Your task to perform on an android device: Open privacy settings Image 0: 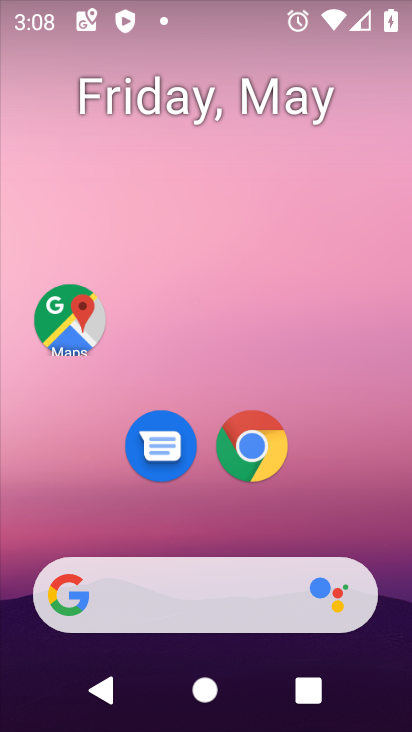
Step 0: drag from (393, 557) to (314, 118)
Your task to perform on an android device: Open privacy settings Image 1: 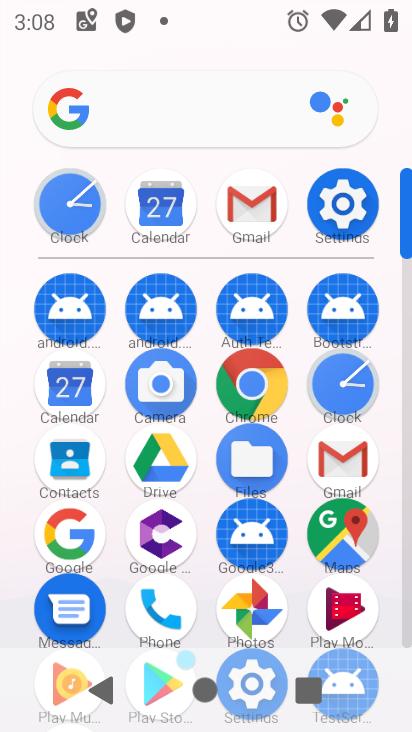
Step 1: click (347, 218)
Your task to perform on an android device: Open privacy settings Image 2: 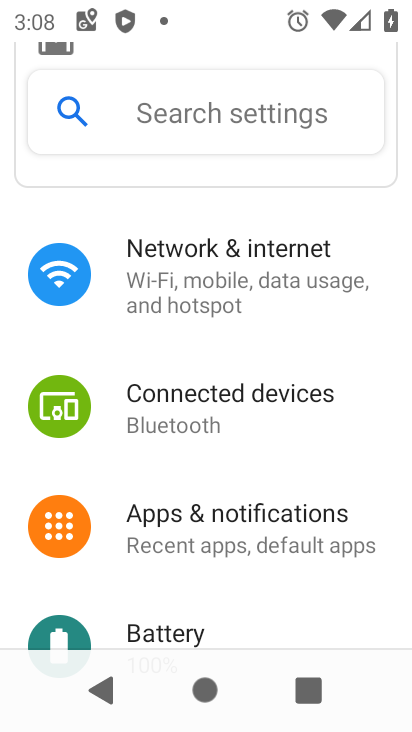
Step 2: drag from (280, 569) to (286, 128)
Your task to perform on an android device: Open privacy settings Image 3: 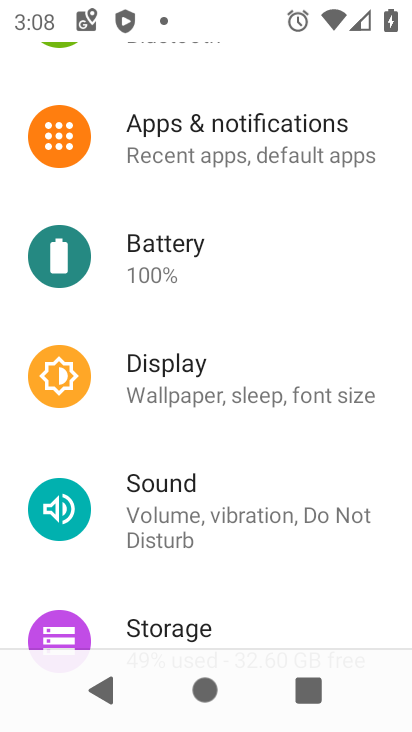
Step 3: drag from (274, 551) to (257, 124)
Your task to perform on an android device: Open privacy settings Image 4: 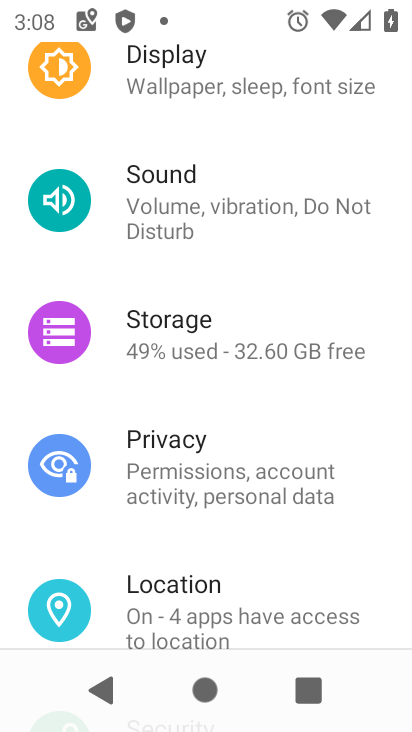
Step 4: click (248, 434)
Your task to perform on an android device: Open privacy settings Image 5: 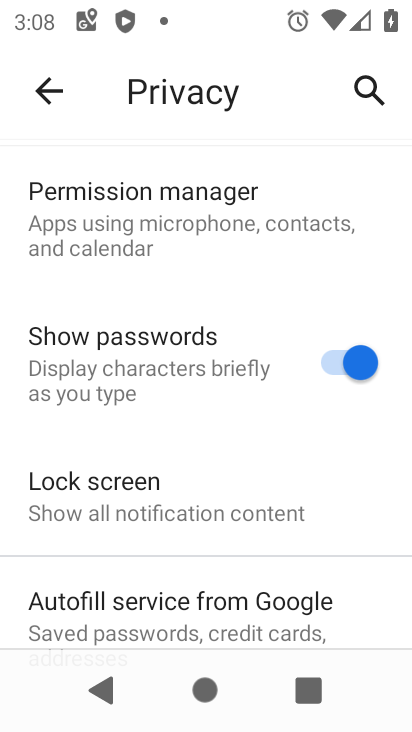
Step 5: task complete